Your task to perform on an android device: toggle notifications settings in the gmail app Image 0: 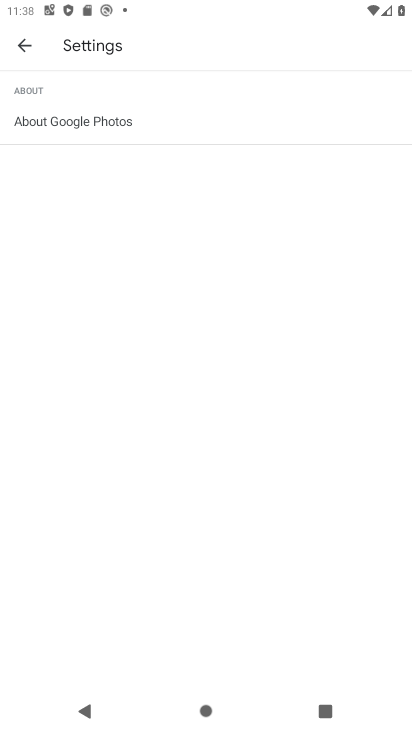
Step 0: press back button
Your task to perform on an android device: toggle notifications settings in the gmail app Image 1: 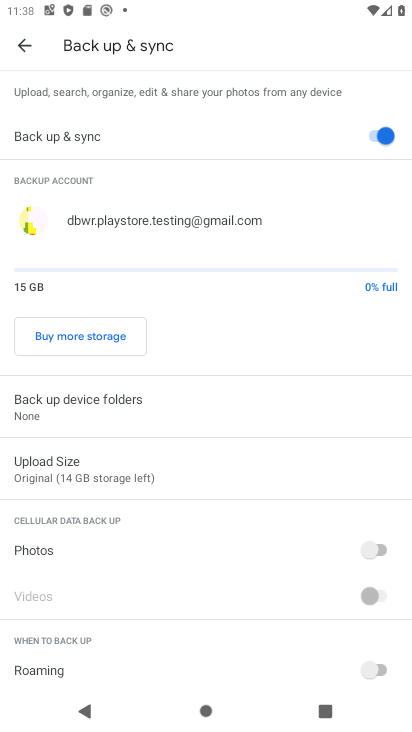
Step 1: press home button
Your task to perform on an android device: toggle notifications settings in the gmail app Image 2: 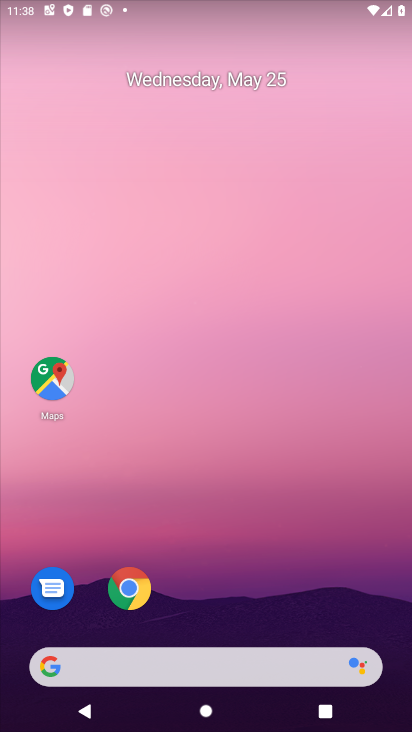
Step 2: drag from (232, 574) to (229, 27)
Your task to perform on an android device: toggle notifications settings in the gmail app Image 3: 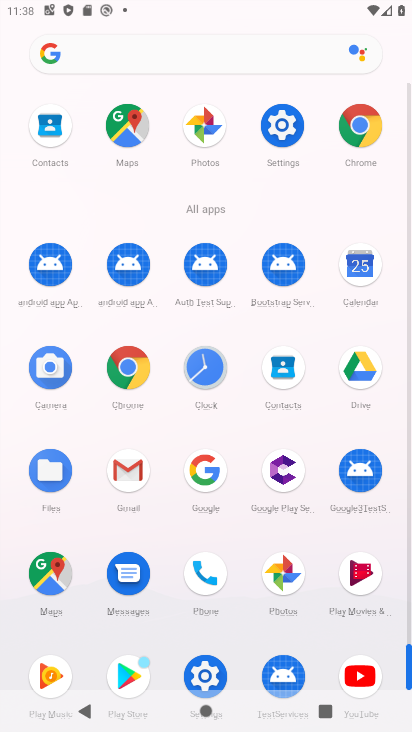
Step 3: drag from (2, 568) to (24, 291)
Your task to perform on an android device: toggle notifications settings in the gmail app Image 4: 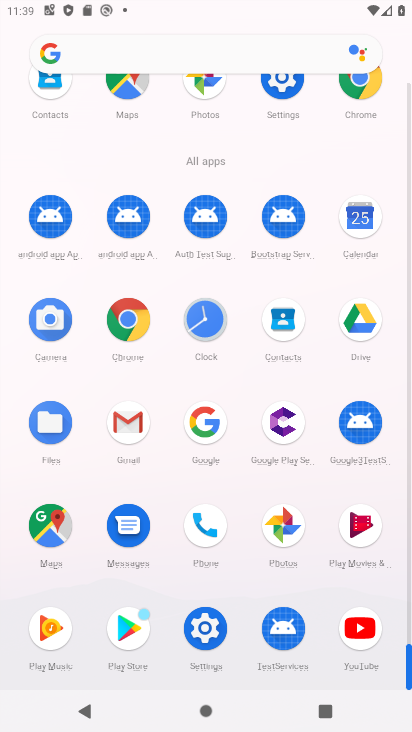
Step 4: click (126, 419)
Your task to perform on an android device: toggle notifications settings in the gmail app Image 5: 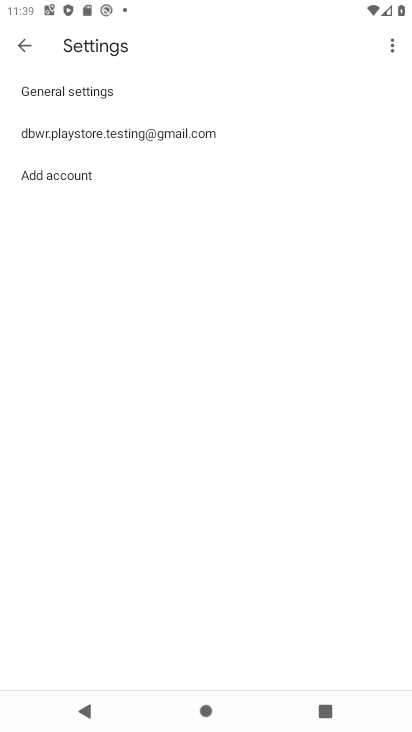
Step 5: click (26, 37)
Your task to perform on an android device: toggle notifications settings in the gmail app Image 6: 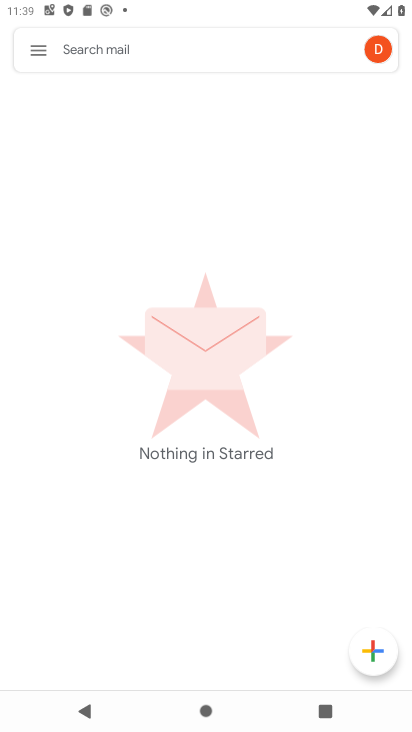
Step 6: click (37, 51)
Your task to perform on an android device: toggle notifications settings in the gmail app Image 7: 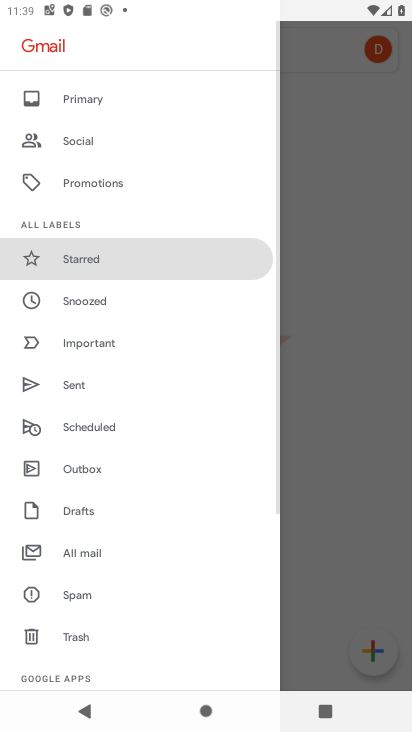
Step 7: drag from (105, 629) to (154, 238)
Your task to perform on an android device: toggle notifications settings in the gmail app Image 8: 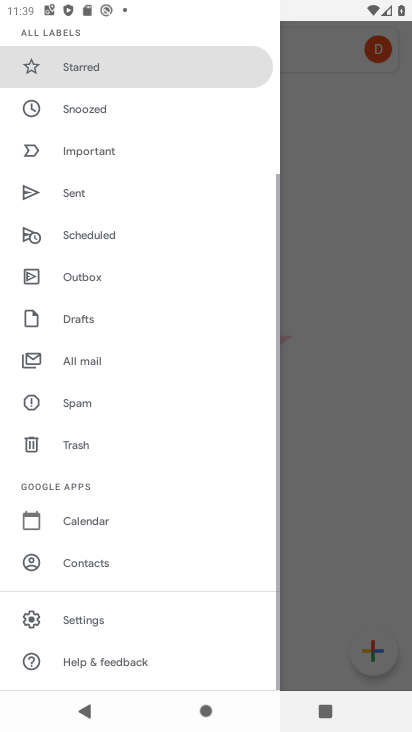
Step 8: click (82, 621)
Your task to perform on an android device: toggle notifications settings in the gmail app Image 9: 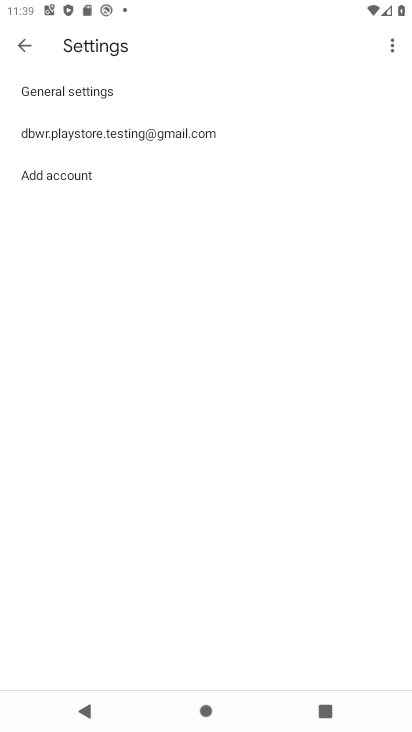
Step 9: click (141, 124)
Your task to perform on an android device: toggle notifications settings in the gmail app Image 10: 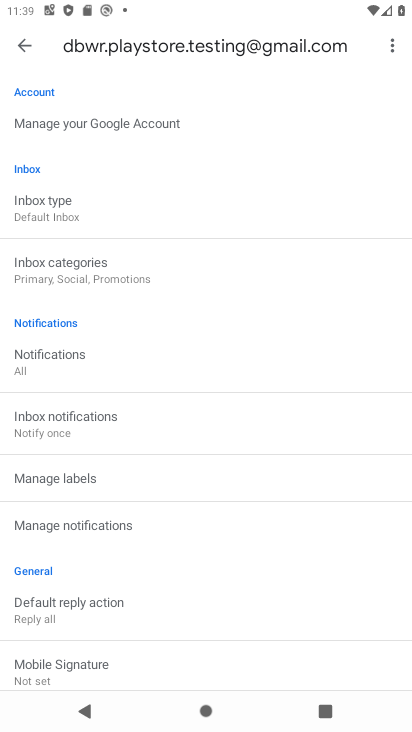
Step 10: click (79, 537)
Your task to perform on an android device: toggle notifications settings in the gmail app Image 11: 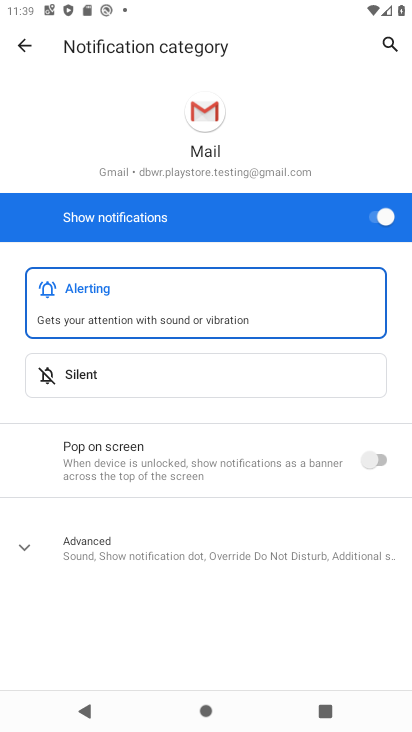
Step 11: click (367, 200)
Your task to perform on an android device: toggle notifications settings in the gmail app Image 12: 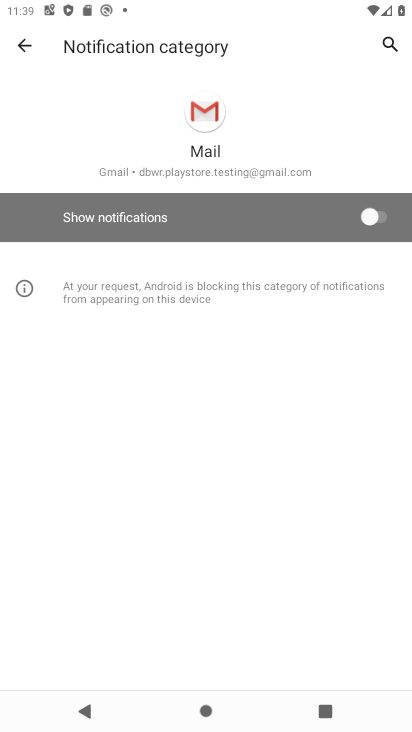
Step 12: task complete